Your task to perform on an android device: turn on data saver in the chrome app Image 0: 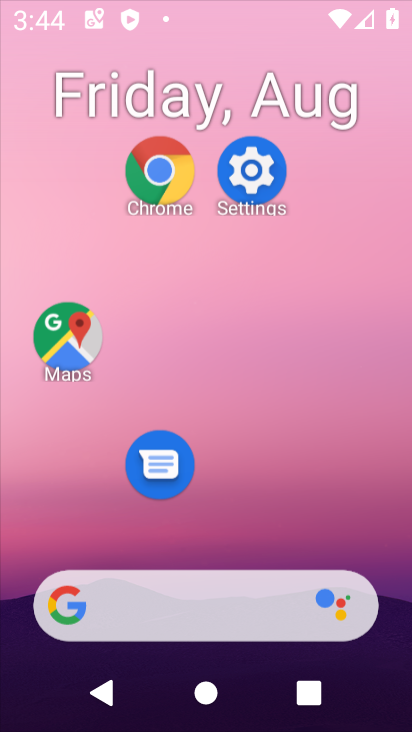
Step 0: press home button
Your task to perform on an android device: turn on data saver in the chrome app Image 1: 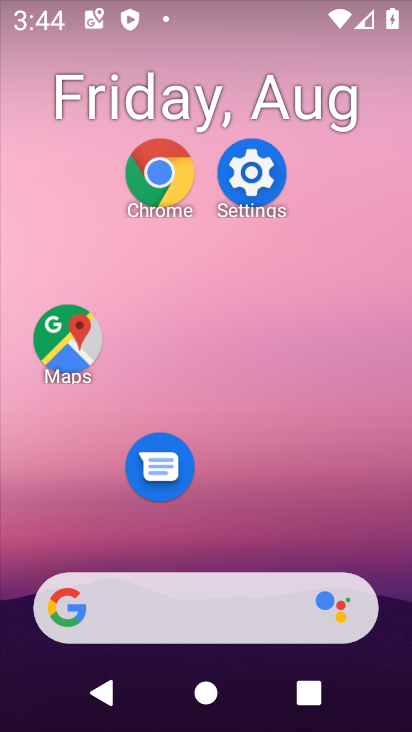
Step 1: drag from (313, 533) to (304, 112)
Your task to perform on an android device: turn on data saver in the chrome app Image 2: 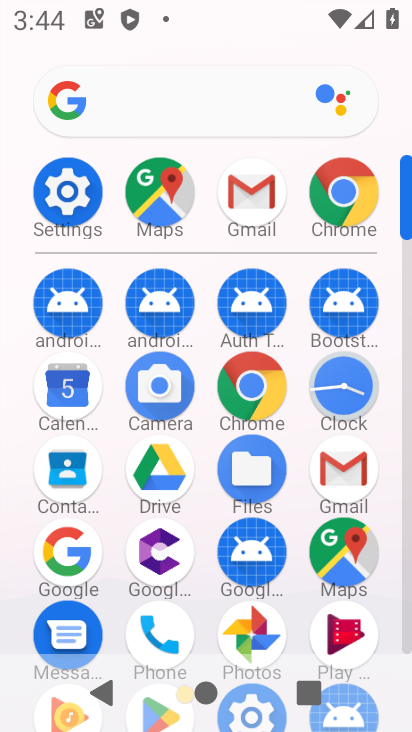
Step 2: click (249, 386)
Your task to perform on an android device: turn on data saver in the chrome app Image 3: 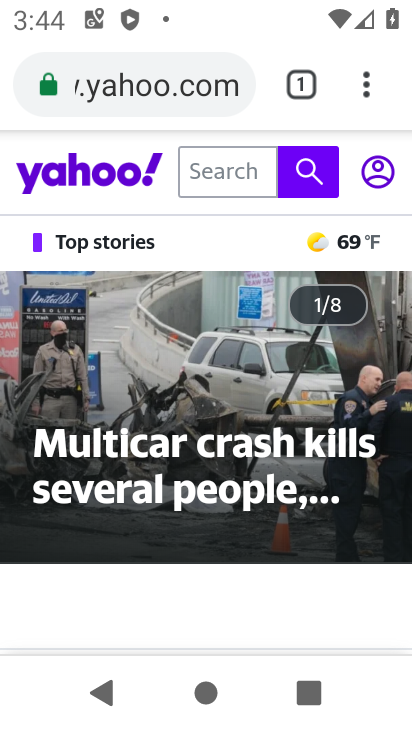
Step 3: drag from (362, 80) to (316, 393)
Your task to perform on an android device: turn on data saver in the chrome app Image 4: 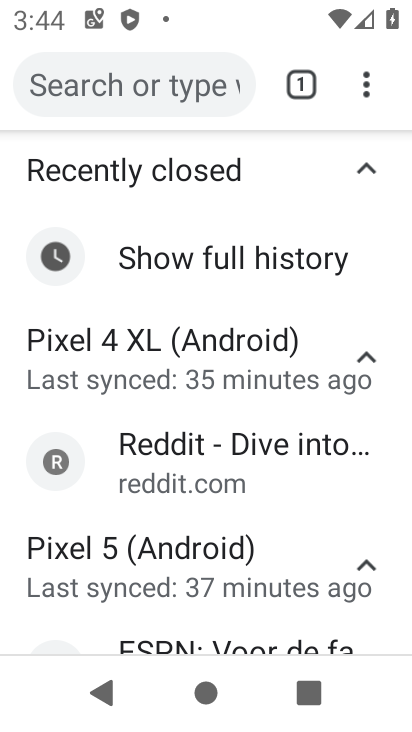
Step 4: drag from (375, 90) to (210, 512)
Your task to perform on an android device: turn on data saver in the chrome app Image 5: 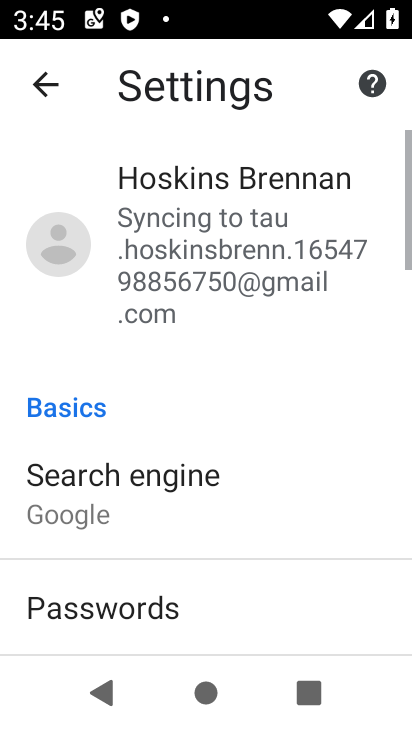
Step 5: drag from (239, 591) to (184, 192)
Your task to perform on an android device: turn on data saver in the chrome app Image 6: 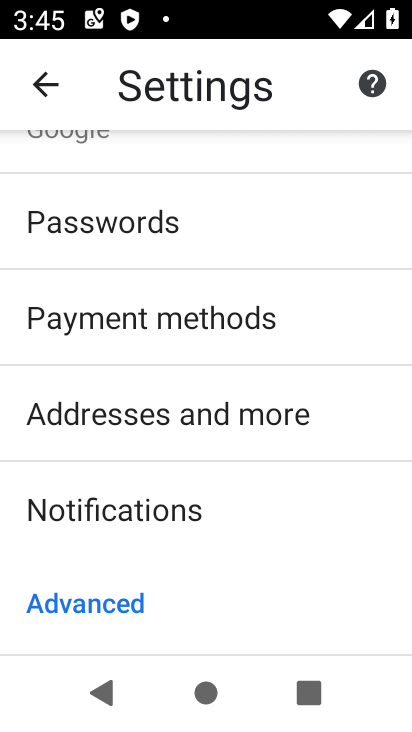
Step 6: drag from (251, 627) to (239, 254)
Your task to perform on an android device: turn on data saver in the chrome app Image 7: 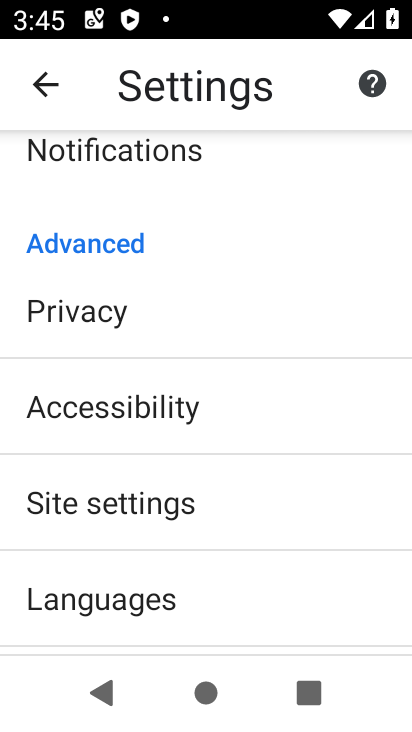
Step 7: drag from (195, 581) to (193, 289)
Your task to perform on an android device: turn on data saver in the chrome app Image 8: 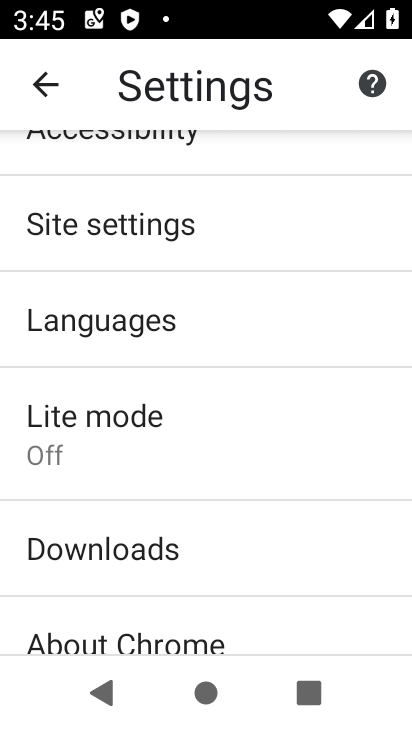
Step 8: drag from (205, 614) to (199, 460)
Your task to perform on an android device: turn on data saver in the chrome app Image 9: 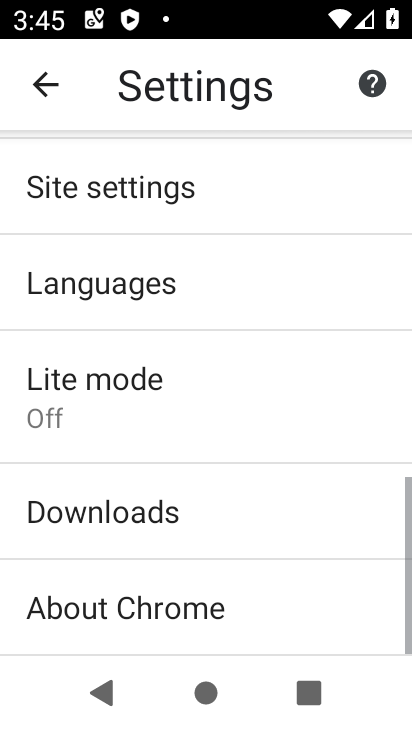
Step 9: click (120, 385)
Your task to perform on an android device: turn on data saver in the chrome app Image 10: 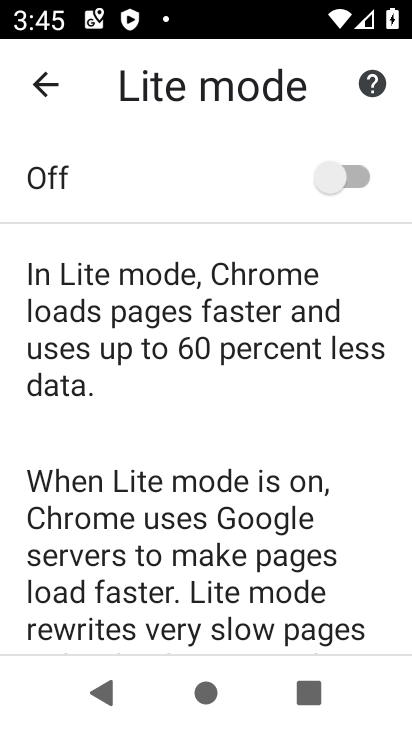
Step 10: click (273, 178)
Your task to perform on an android device: turn on data saver in the chrome app Image 11: 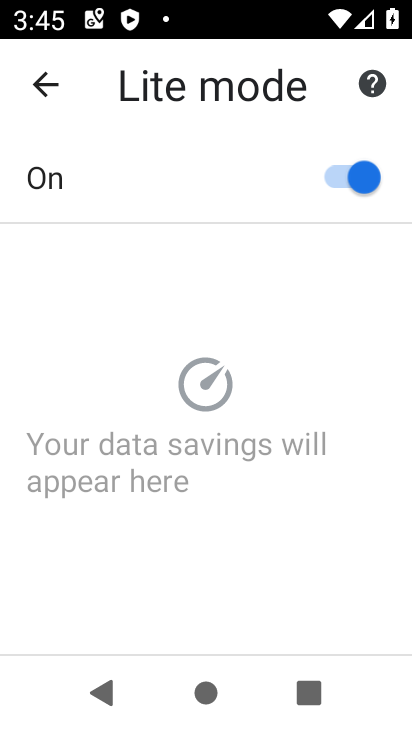
Step 11: task complete